Your task to perform on an android device: change text size in settings app Image 0: 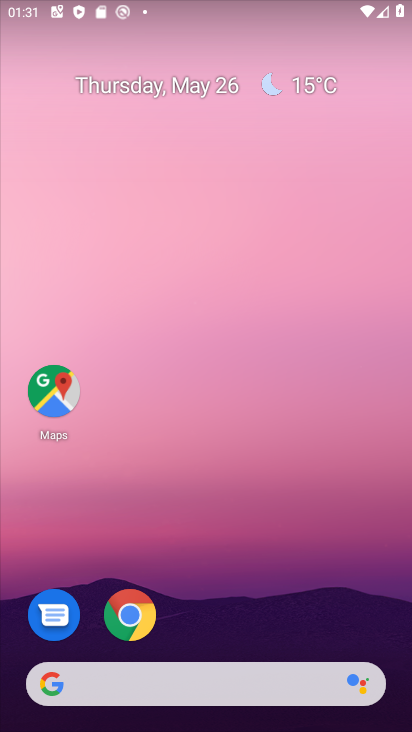
Step 0: drag from (267, 584) to (322, 3)
Your task to perform on an android device: change text size in settings app Image 1: 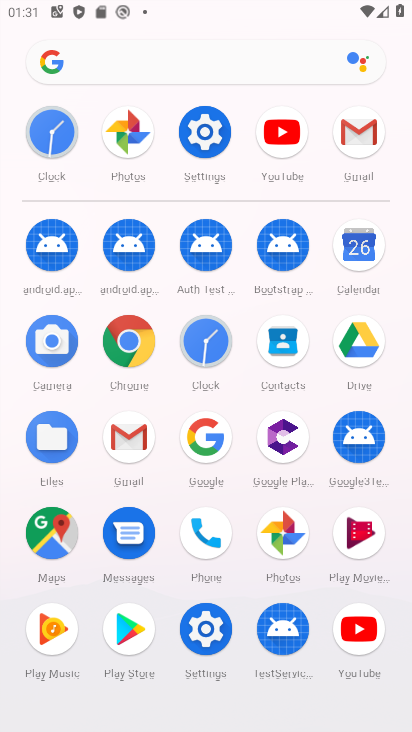
Step 1: click (205, 188)
Your task to perform on an android device: change text size in settings app Image 2: 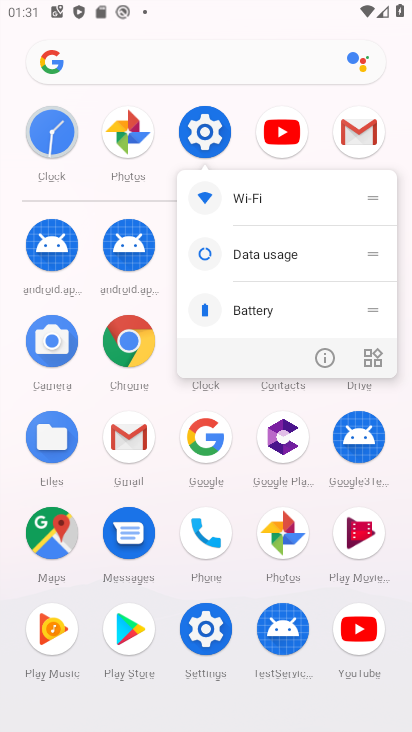
Step 2: click (212, 148)
Your task to perform on an android device: change text size in settings app Image 3: 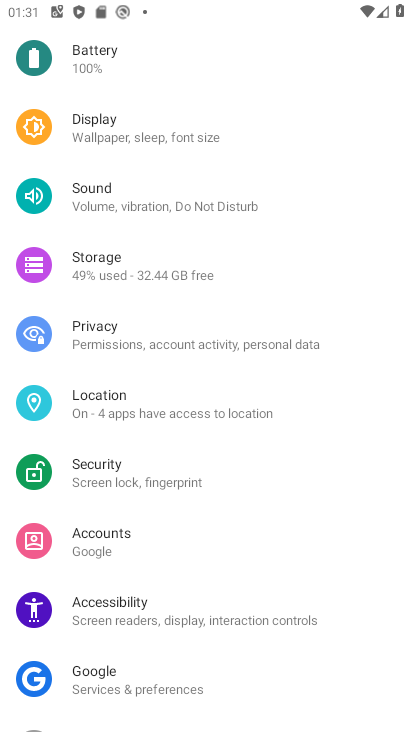
Step 3: drag from (138, 70) to (137, 691)
Your task to perform on an android device: change text size in settings app Image 4: 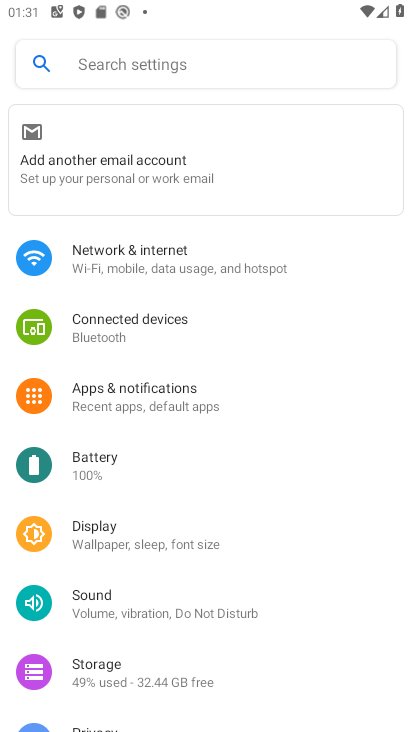
Step 4: click (111, 60)
Your task to perform on an android device: change text size in settings app Image 5: 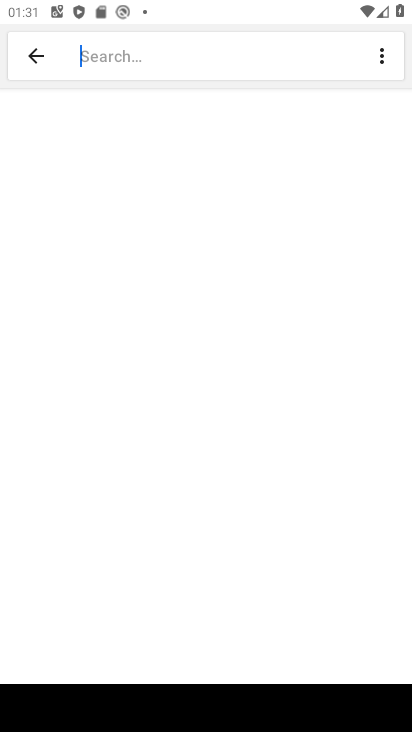
Step 5: type "text size"
Your task to perform on an android device: change text size in settings app Image 6: 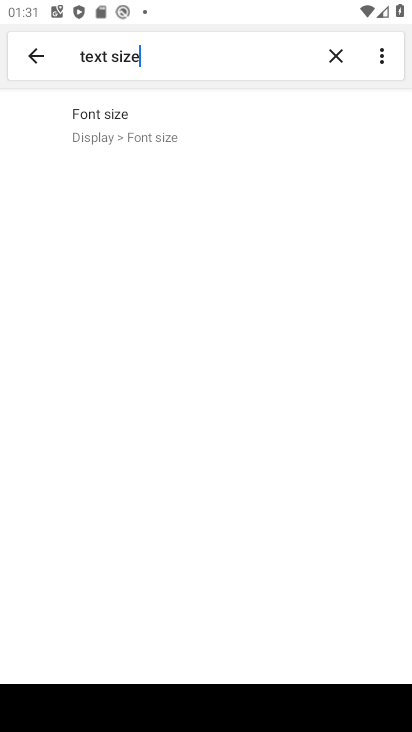
Step 6: click (103, 104)
Your task to perform on an android device: change text size in settings app Image 7: 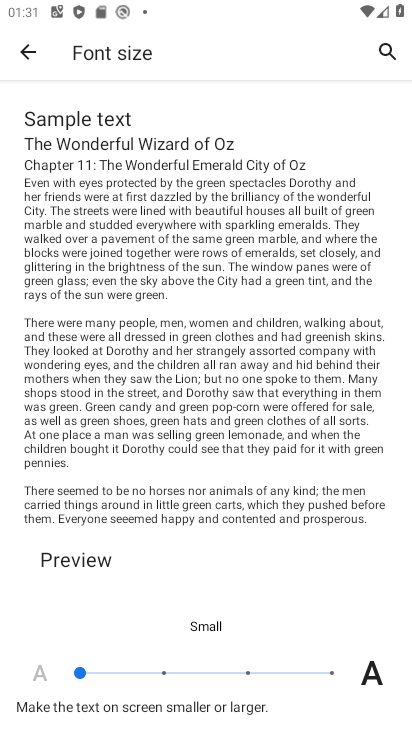
Step 7: click (165, 670)
Your task to perform on an android device: change text size in settings app Image 8: 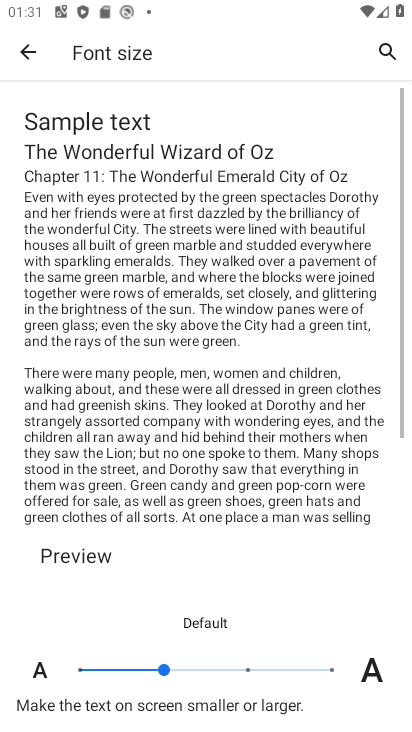
Step 8: click (249, 670)
Your task to perform on an android device: change text size in settings app Image 9: 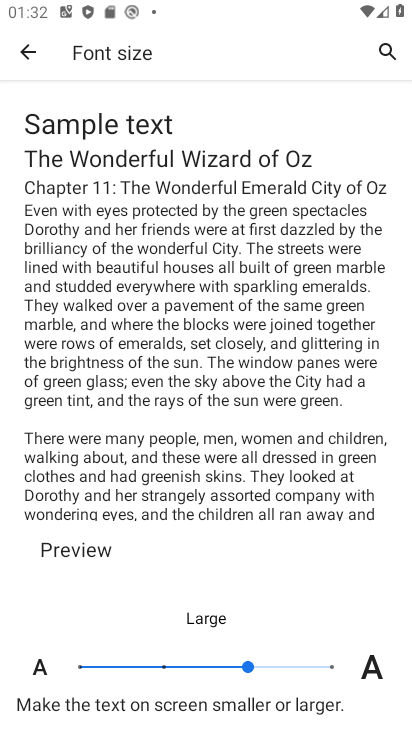
Step 9: task complete